Your task to perform on an android device: change notification settings in the gmail app Image 0: 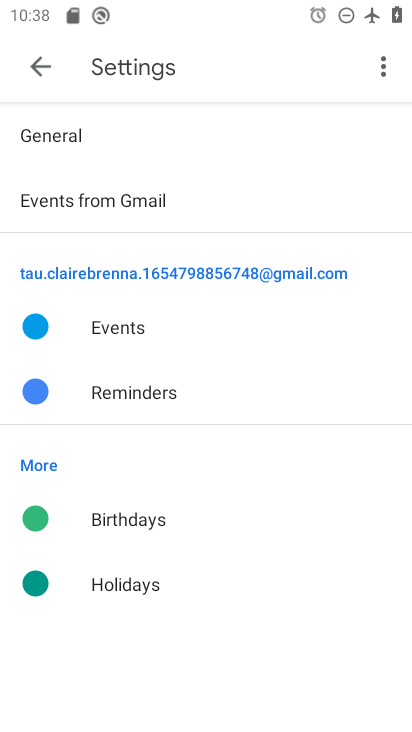
Step 0: press home button
Your task to perform on an android device: change notification settings in the gmail app Image 1: 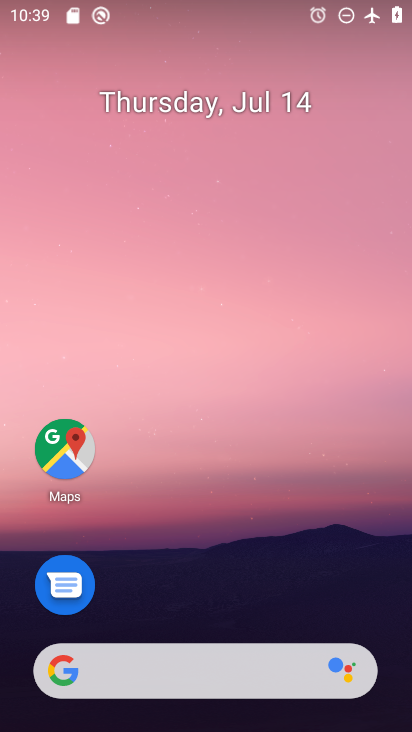
Step 1: drag from (215, 634) to (186, 123)
Your task to perform on an android device: change notification settings in the gmail app Image 2: 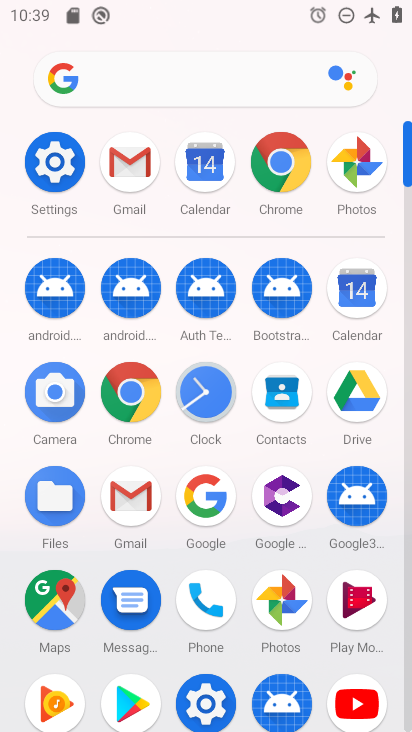
Step 2: click (114, 147)
Your task to perform on an android device: change notification settings in the gmail app Image 3: 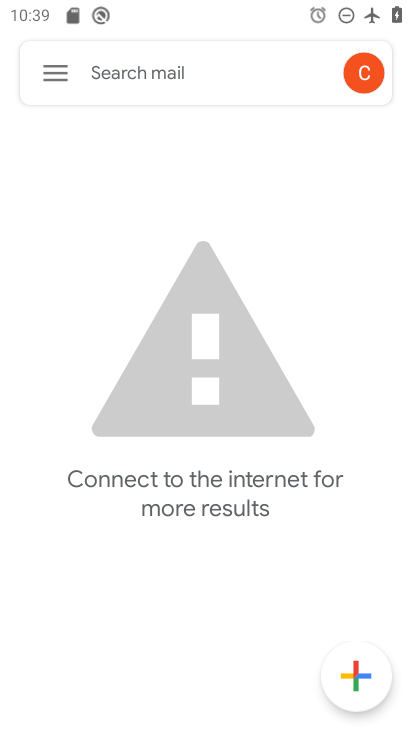
Step 3: click (63, 71)
Your task to perform on an android device: change notification settings in the gmail app Image 4: 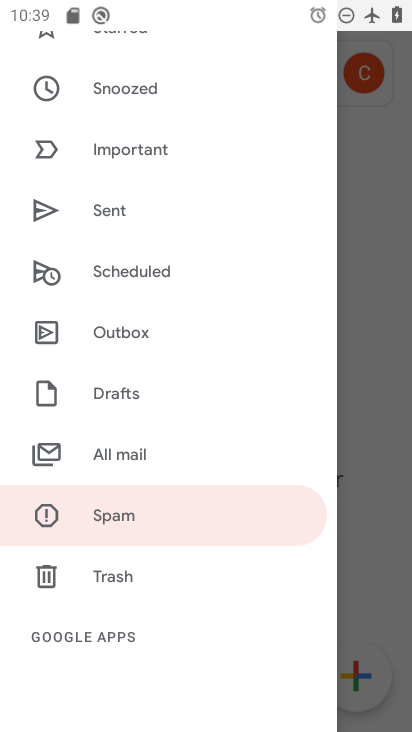
Step 4: drag from (84, 566) to (44, 228)
Your task to perform on an android device: change notification settings in the gmail app Image 5: 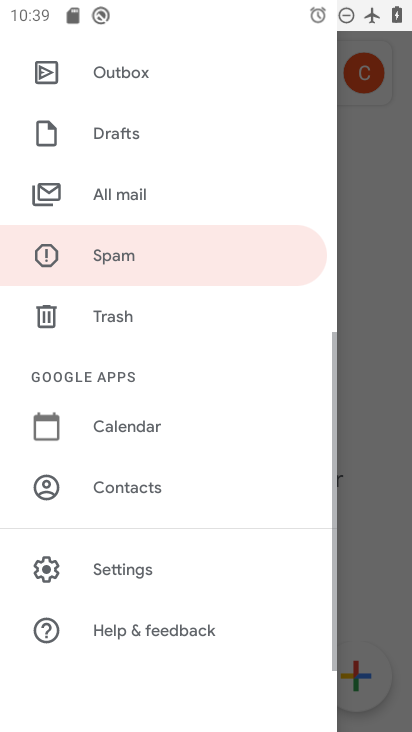
Step 5: click (108, 557)
Your task to perform on an android device: change notification settings in the gmail app Image 6: 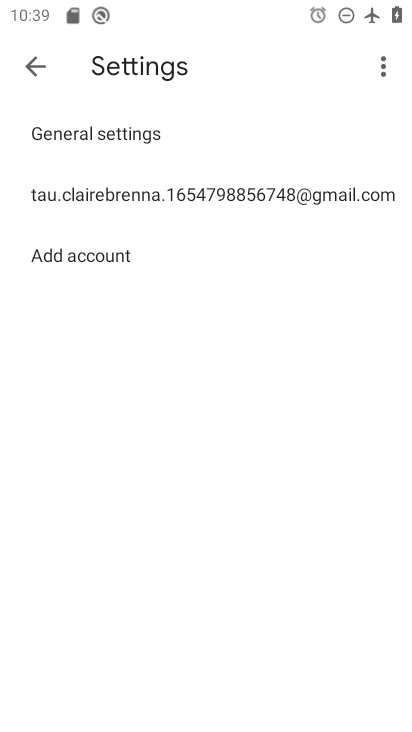
Step 6: click (100, 155)
Your task to perform on an android device: change notification settings in the gmail app Image 7: 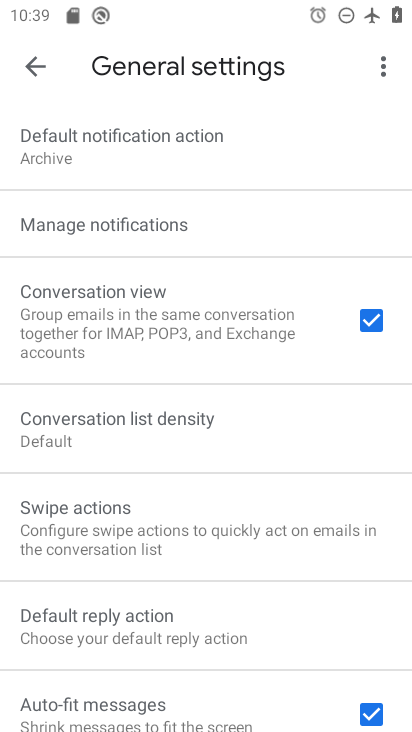
Step 7: click (229, 233)
Your task to perform on an android device: change notification settings in the gmail app Image 8: 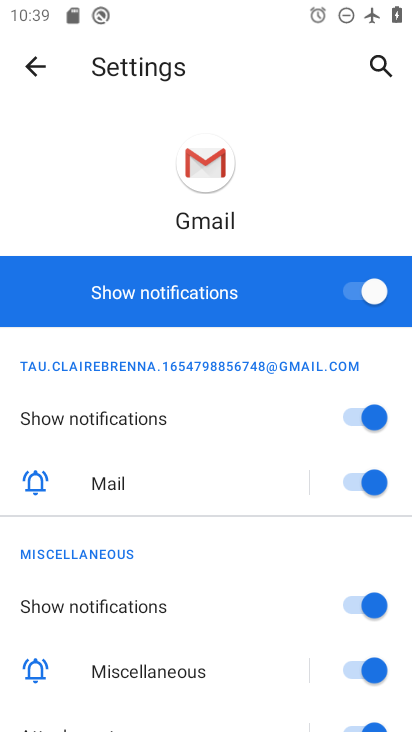
Step 8: click (363, 287)
Your task to perform on an android device: change notification settings in the gmail app Image 9: 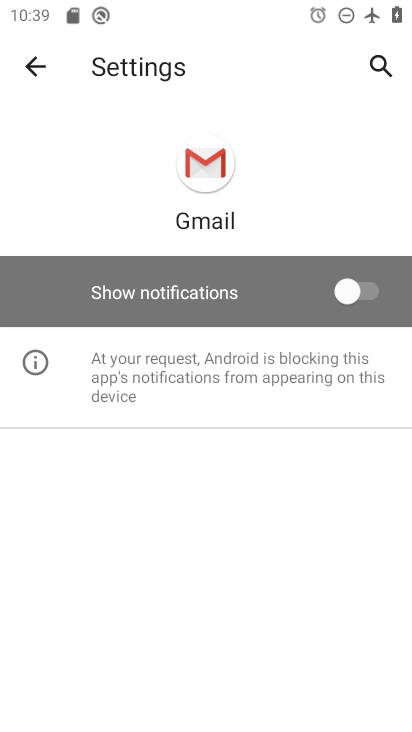
Step 9: task complete